Your task to perform on an android device: Check the weather Image 0: 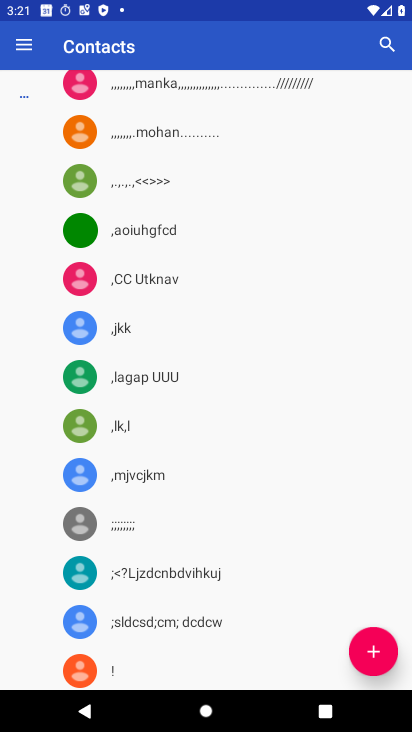
Step 0: press home button
Your task to perform on an android device: Check the weather Image 1: 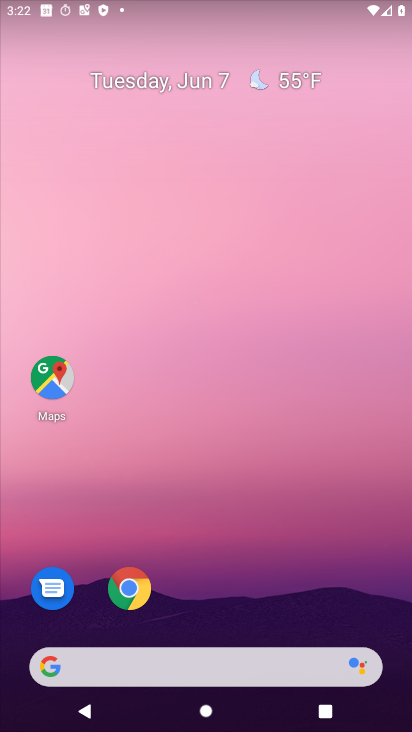
Step 1: click (44, 677)
Your task to perform on an android device: Check the weather Image 2: 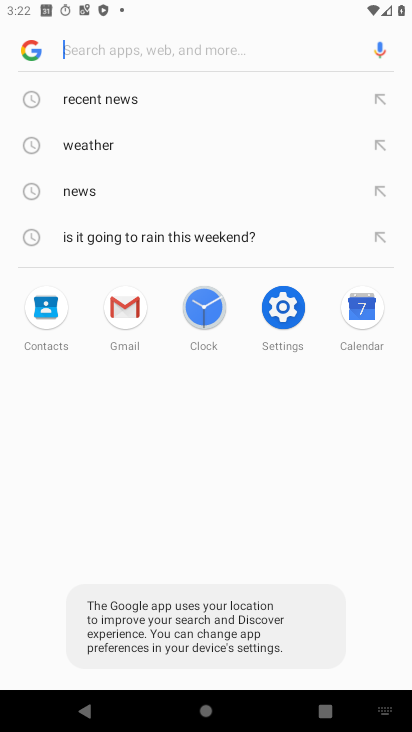
Step 2: click (72, 155)
Your task to perform on an android device: Check the weather Image 3: 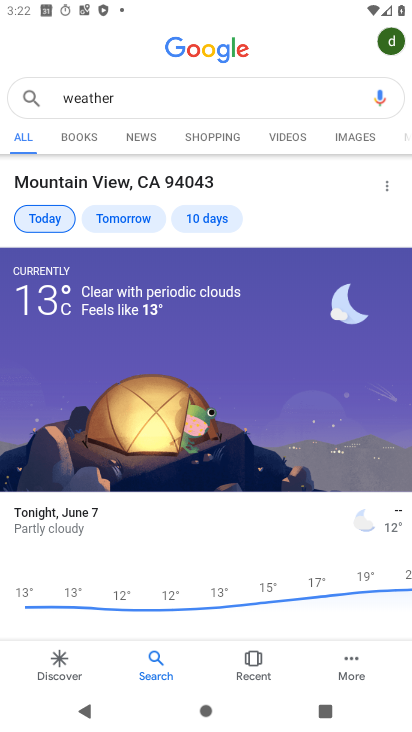
Step 3: task complete